Your task to perform on an android device: star an email in the gmail app Image 0: 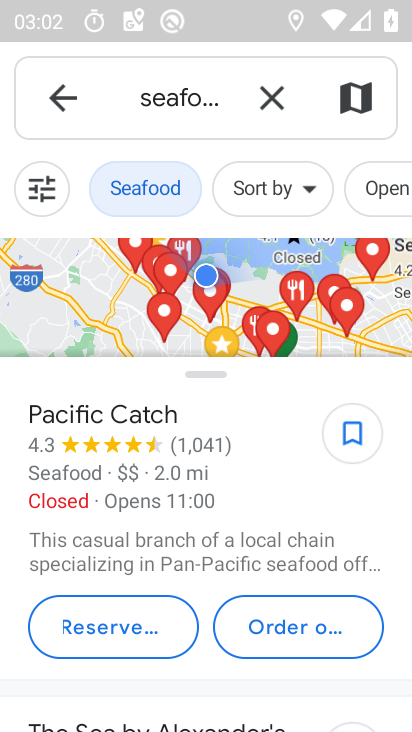
Step 0: press home button
Your task to perform on an android device: star an email in the gmail app Image 1: 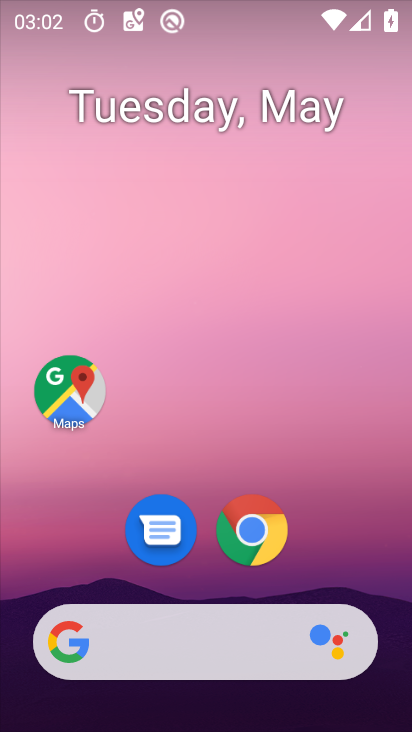
Step 1: drag from (4, 719) to (279, 159)
Your task to perform on an android device: star an email in the gmail app Image 2: 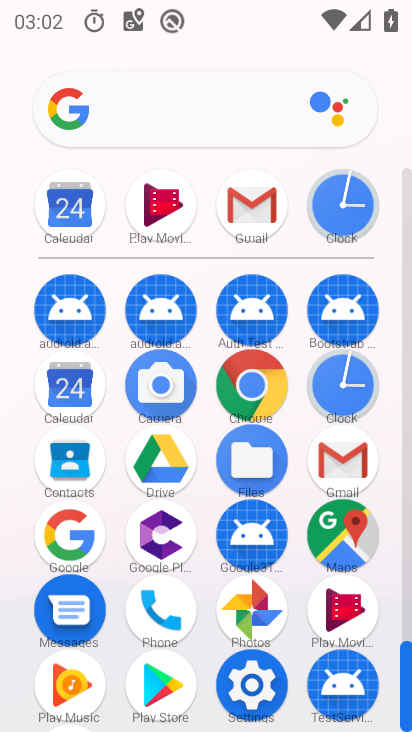
Step 2: click (325, 468)
Your task to perform on an android device: star an email in the gmail app Image 3: 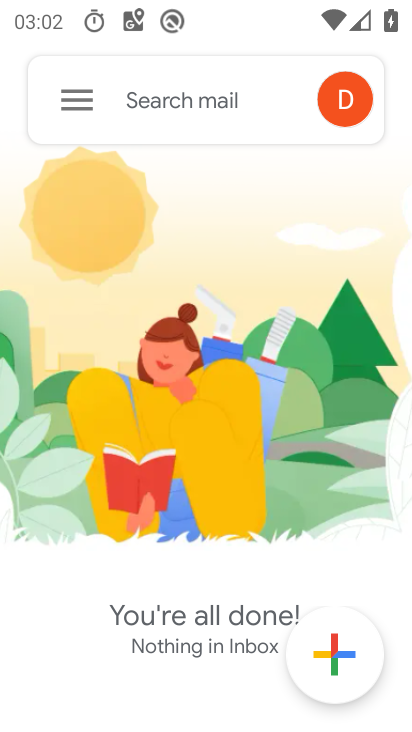
Step 3: click (63, 103)
Your task to perform on an android device: star an email in the gmail app Image 4: 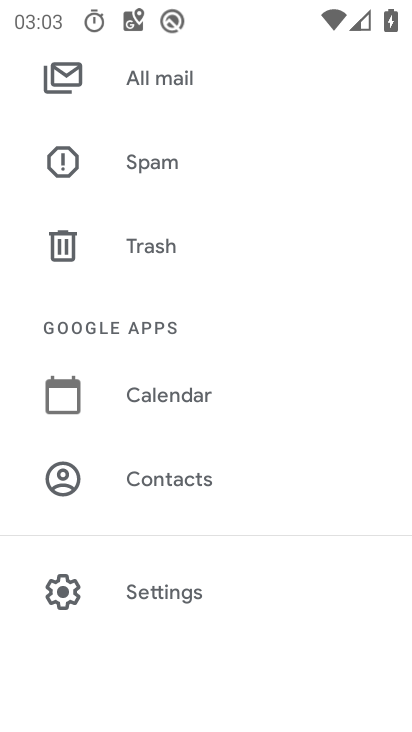
Step 4: drag from (226, 98) to (197, 469)
Your task to perform on an android device: star an email in the gmail app Image 5: 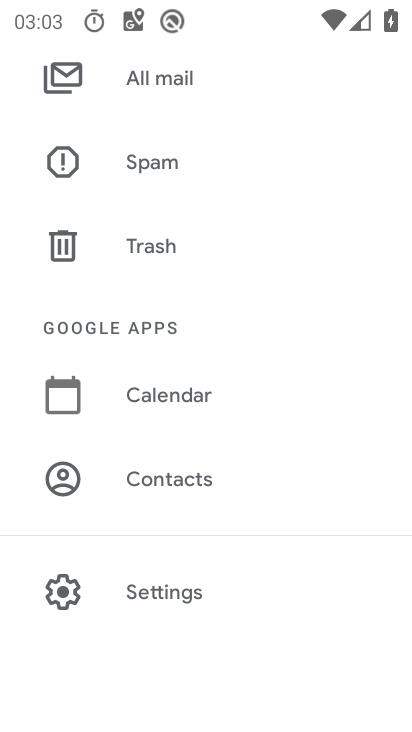
Step 5: click (155, 76)
Your task to perform on an android device: star an email in the gmail app Image 6: 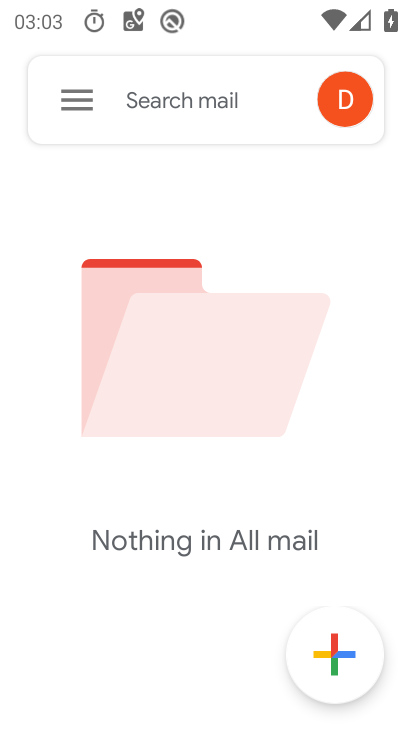
Step 6: task complete